Your task to perform on an android device: allow notifications from all sites in the chrome app Image 0: 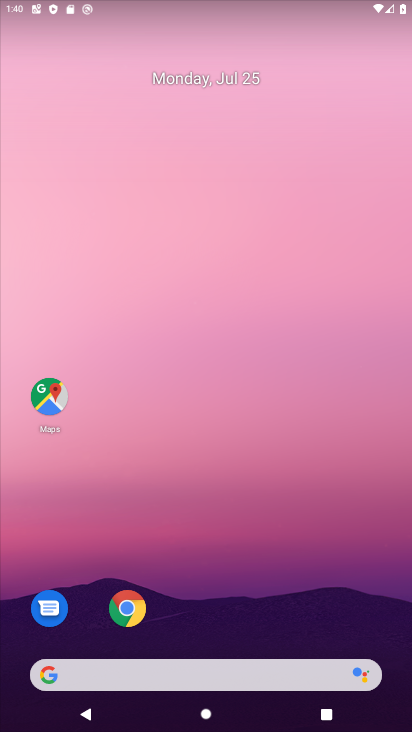
Step 0: click (139, 603)
Your task to perform on an android device: allow notifications from all sites in the chrome app Image 1: 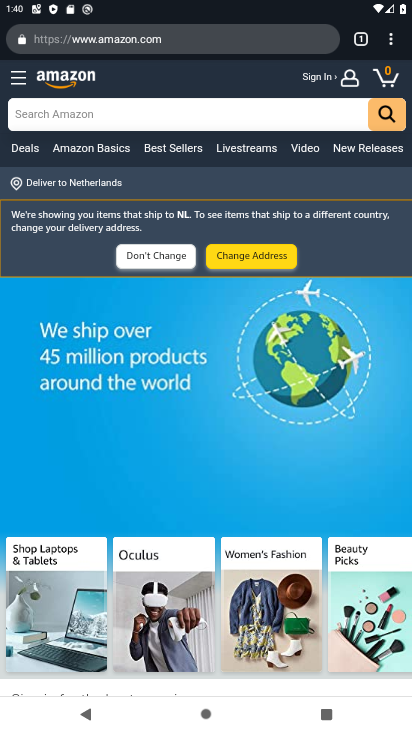
Step 1: task complete